Your task to perform on an android device: Search for pizza restaurants on Maps Image 0: 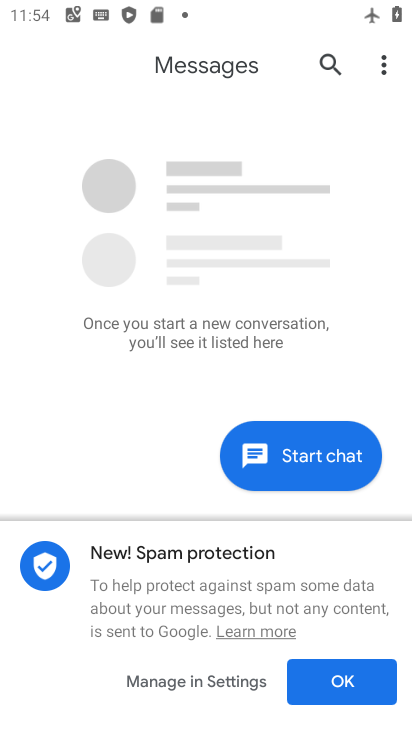
Step 0: press home button
Your task to perform on an android device: Search for pizza restaurants on Maps Image 1: 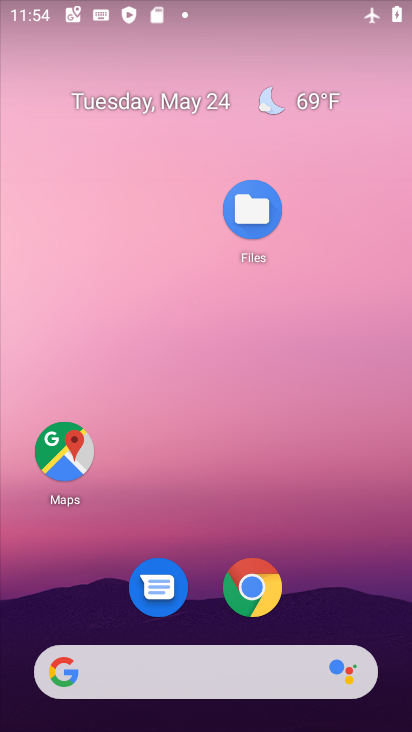
Step 1: click (65, 452)
Your task to perform on an android device: Search for pizza restaurants on Maps Image 2: 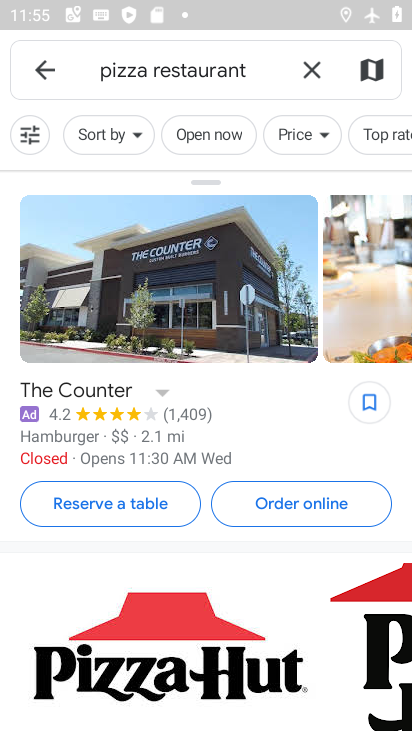
Step 2: task complete